Your task to perform on an android device: turn pop-ups on in chrome Image 0: 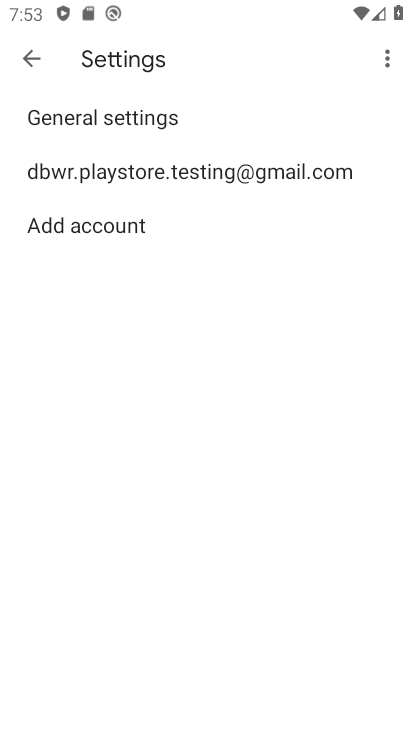
Step 0: press home button
Your task to perform on an android device: turn pop-ups on in chrome Image 1: 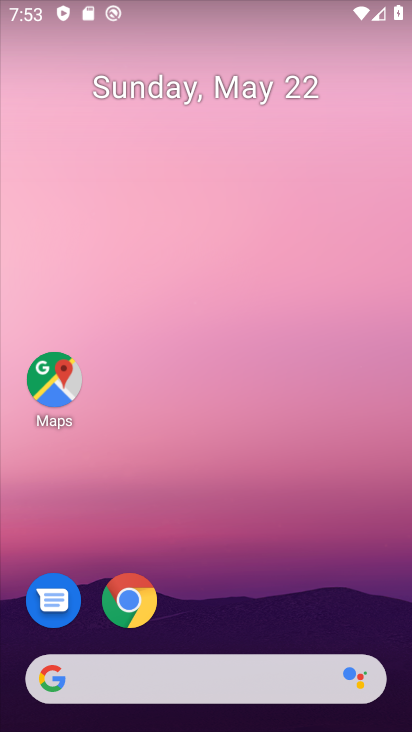
Step 1: click (124, 619)
Your task to perform on an android device: turn pop-ups on in chrome Image 2: 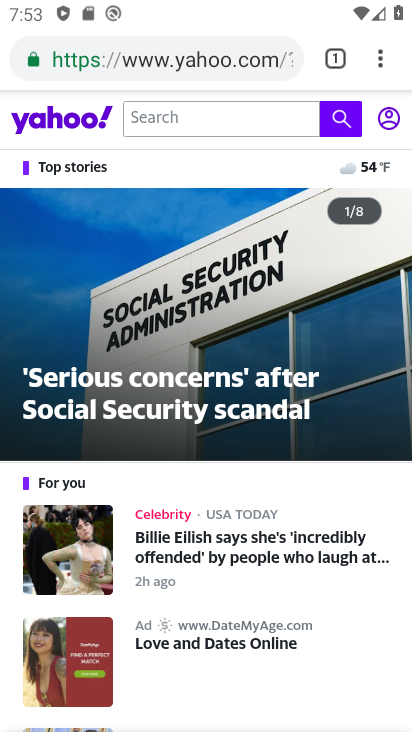
Step 2: click (379, 59)
Your task to perform on an android device: turn pop-ups on in chrome Image 3: 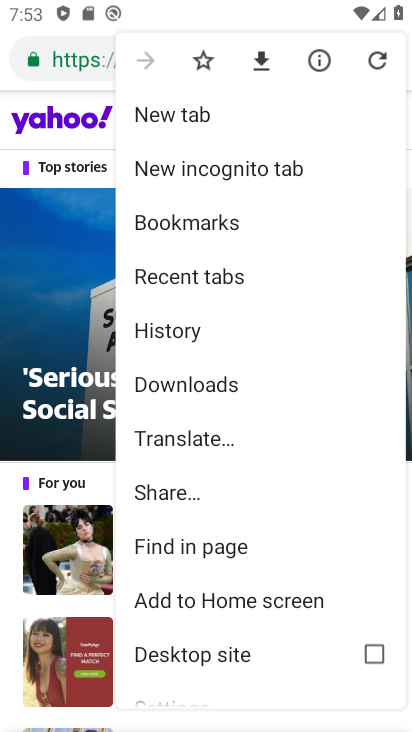
Step 3: drag from (217, 636) to (226, 308)
Your task to perform on an android device: turn pop-ups on in chrome Image 4: 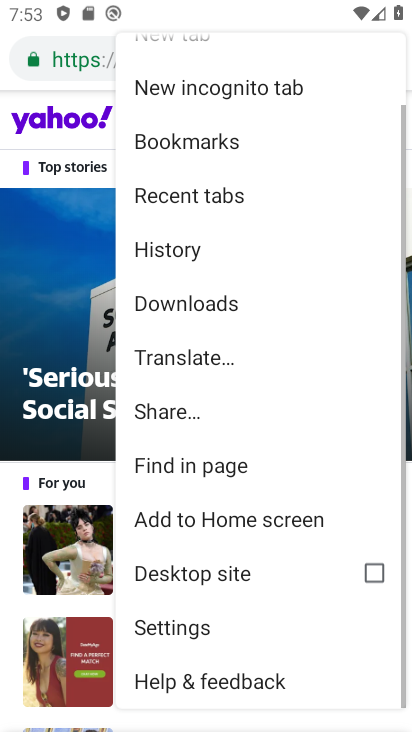
Step 4: click (166, 630)
Your task to perform on an android device: turn pop-ups on in chrome Image 5: 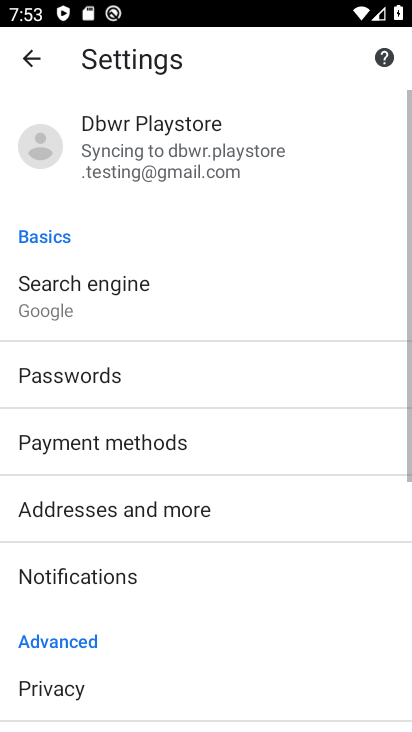
Step 5: drag from (131, 692) to (140, 383)
Your task to perform on an android device: turn pop-ups on in chrome Image 6: 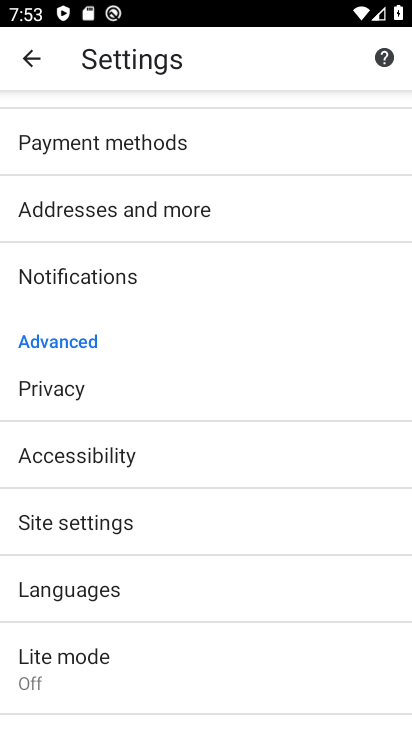
Step 6: click (80, 523)
Your task to perform on an android device: turn pop-ups on in chrome Image 7: 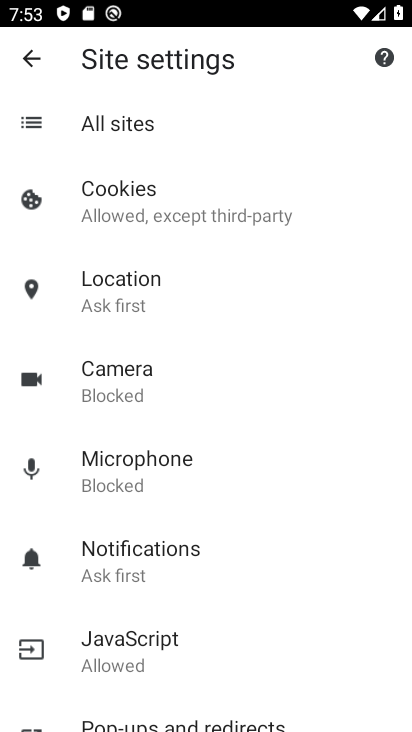
Step 7: drag from (152, 719) to (182, 278)
Your task to perform on an android device: turn pop-ups on in chrome Image 8: 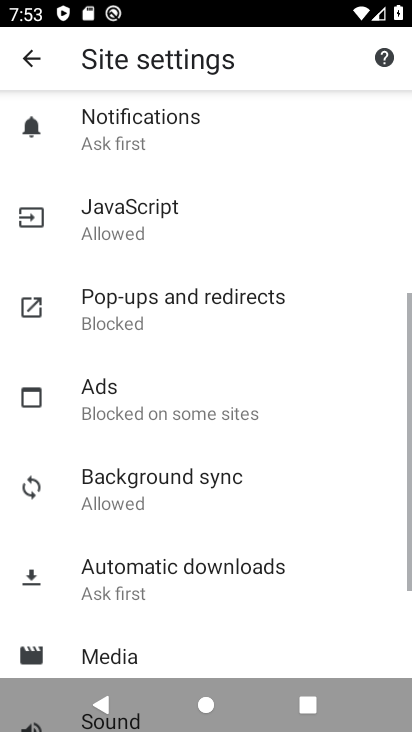
Step 8: drag from (233, 655) to (272, 354)
Your task to perform on an android device: turn pop-ups on in chrome Image 9: 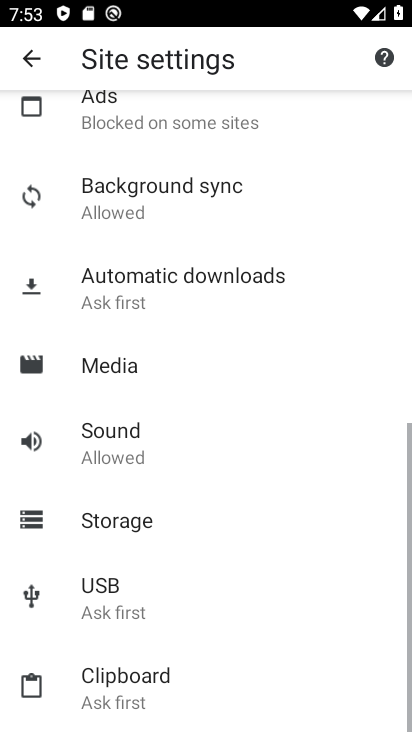
Step 9: drag from (251, 148) to (265, 531)
Your task to perform on an android device: turn pop-ups on in chrome Image 10: 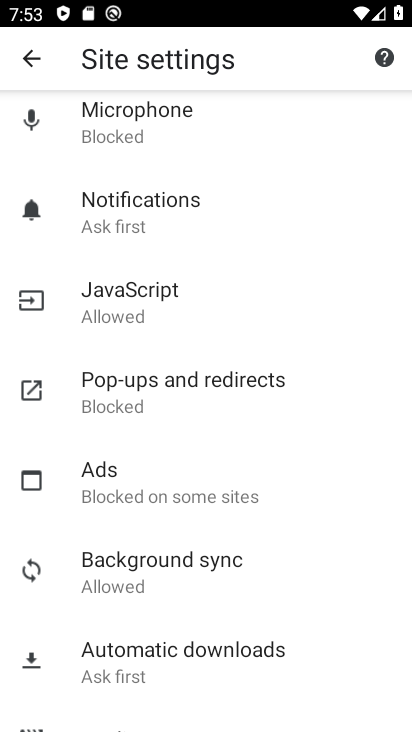
Step 10: click (176, 388)
Your task to perform on an android device: turn pop-ups on in chrome Image 11: 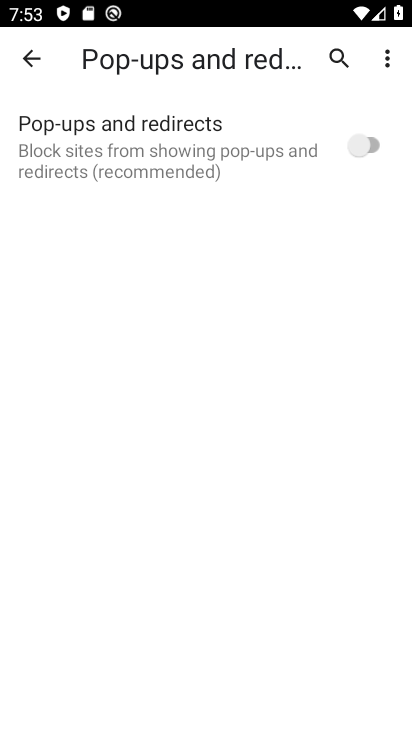
Step 11: click (377, 149)
Your task to perform on an android device: turn pop-ups on in chrome Image 12: 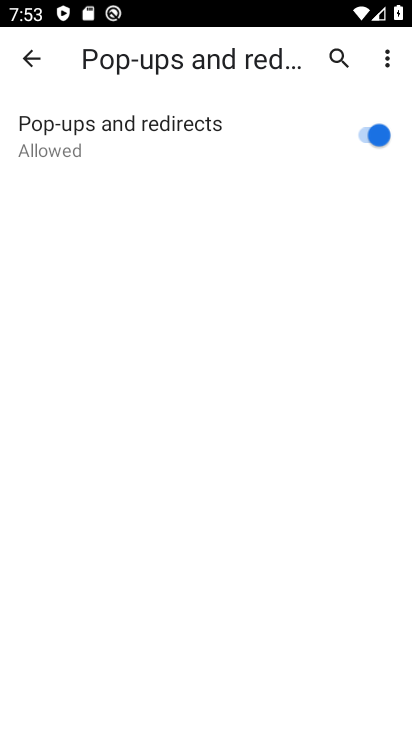
Step 12: task complete